Your task to perform on an android device: stop showing notifications on the lock screen Image 0: 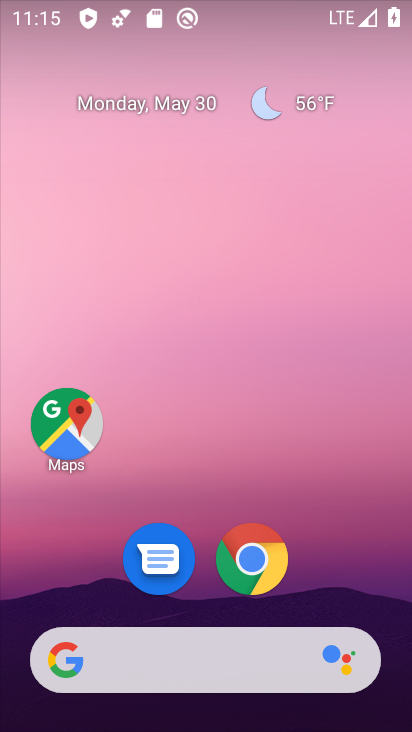
Step 0: drag from (356, 572) to (266, 264)
Your task to perform on an android device: stop showing notifications on the lock screen Image 1: 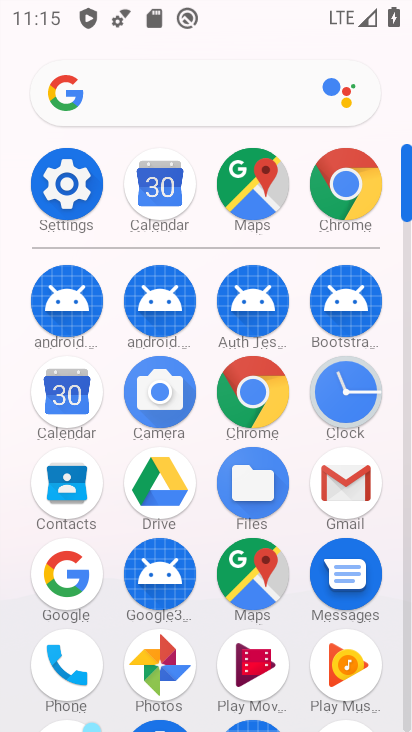
Step 1: click (71, 180)
Your task to perform on an android device: stop showing notifications on the lock screen Image 2: 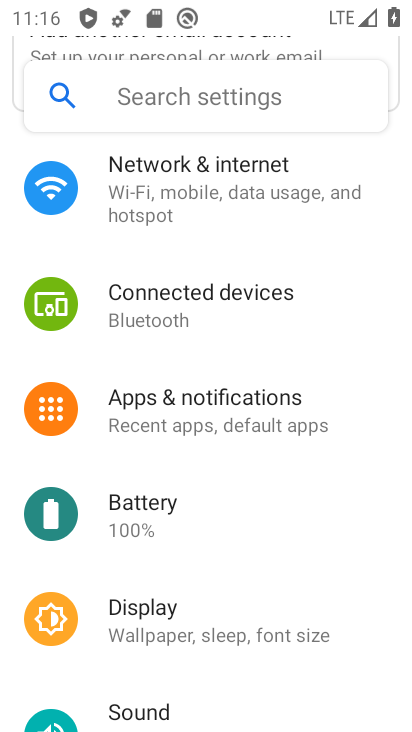
Step 2: click (194, 410)
Your task to perform on an android device: stop showing notifications on the lock screen Image 3: 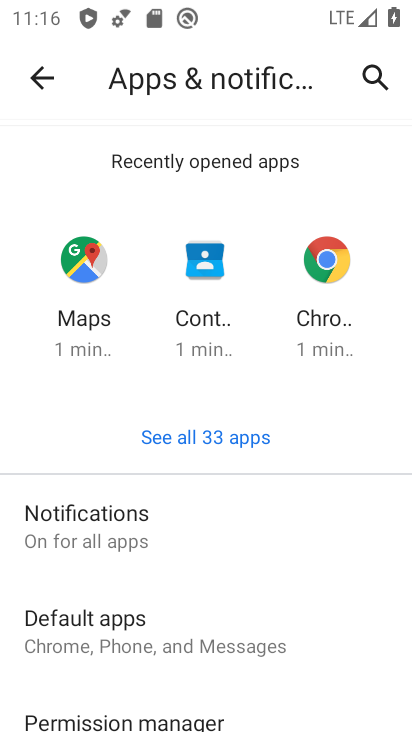
Step 3: click (205, 527)
Your task to perform on an android device: stop showing notifications on the lock screen Image 4: 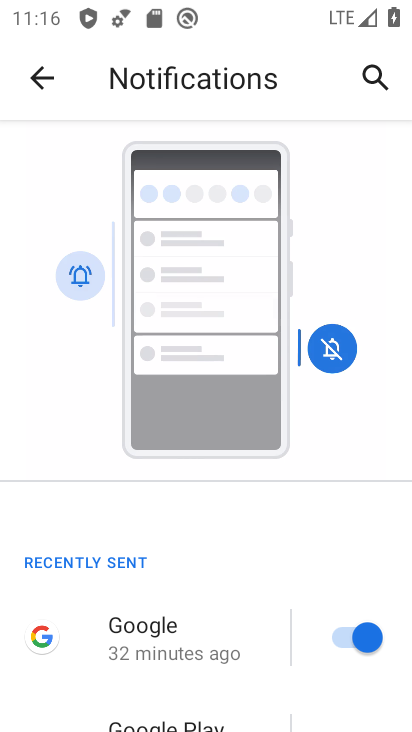
Step 4: drag from (218, 615) to (163, 255)
Your task to perform on an android device: stop showing notifications on the lock screen Image 5: 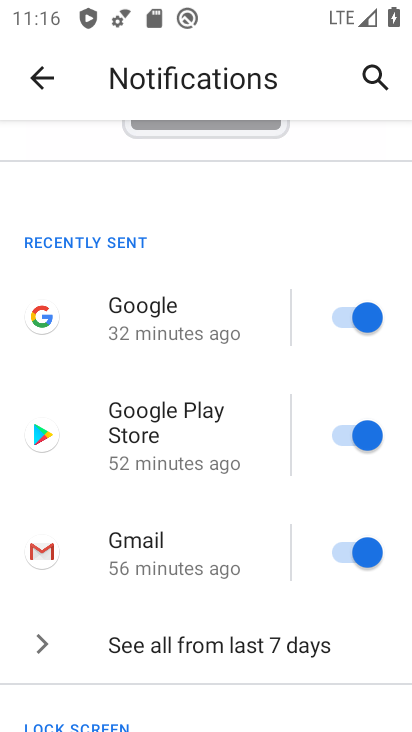
Step 5: drag from (242, 571) to (210, 238)
Your task to perform on an android device: stop showing notifications on the lock screen Image 6: 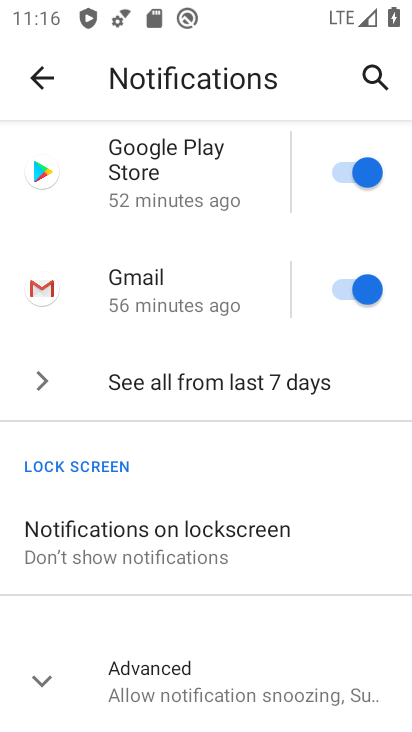
Step 6: click (263, 554)
Your task to perform on an android device: stop showing notifications on the lock screen Image 7: 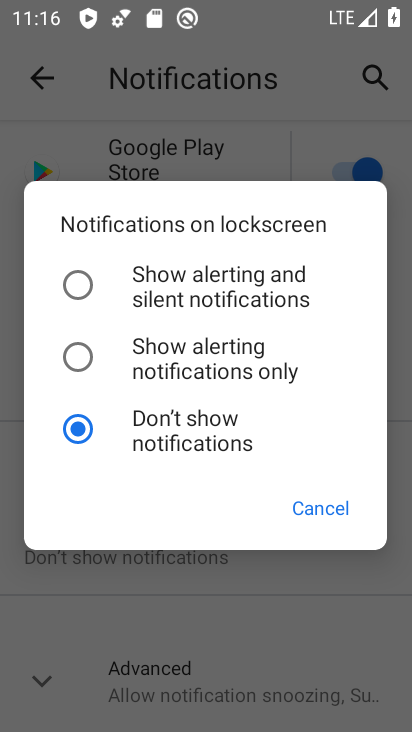
Step 7: task complete